Your task to perform on an android device: stop showing notifications on the lock screen Image 0: 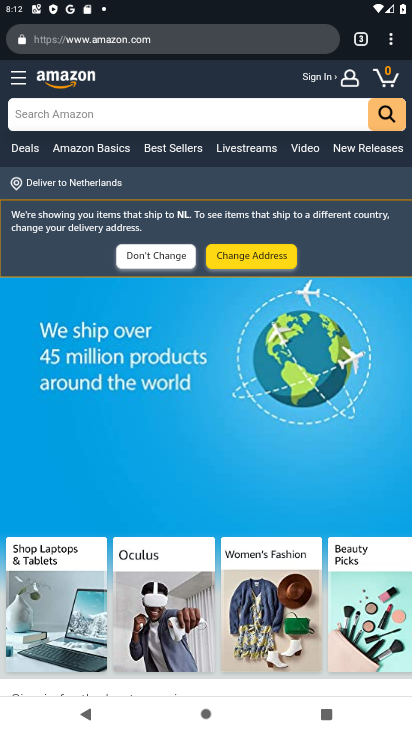
Step 0: press home button
Your task to perform on an android device: stop showing notifications on the lock screen Image 1: 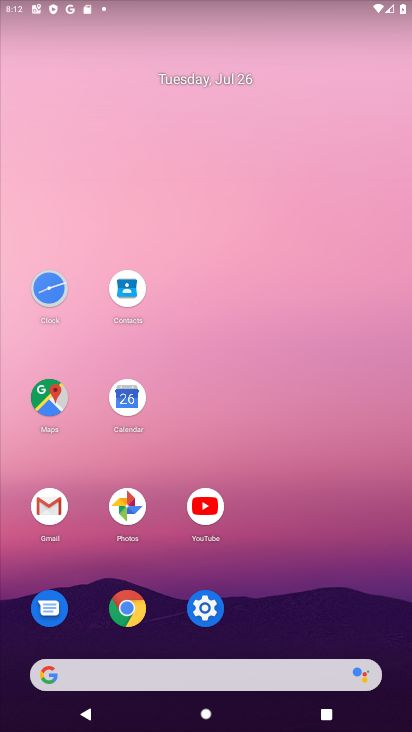
Step 1: click (204, 606)
Your task to perform on an android device: stop showing notifications on the lock screen Image 2: 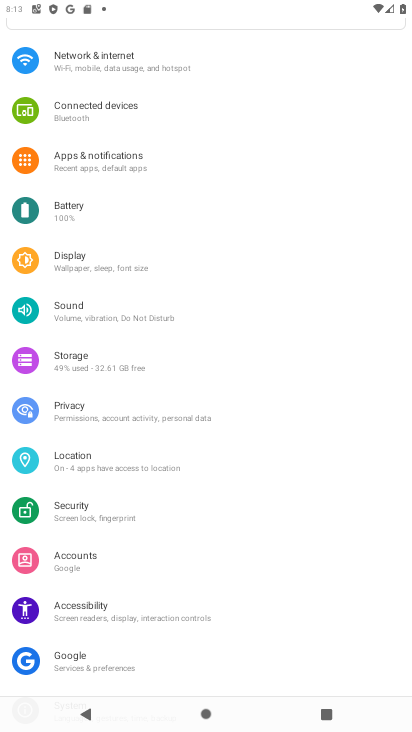
Step 2: click (109, 157)
Your task to perform on an android device: stop showing notifications on the lock screen Image 3: 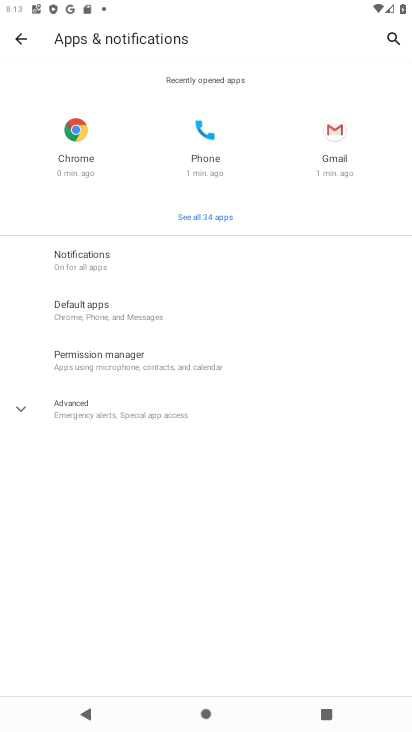
Step 3: click (83, 253)
Your task to perform on an android device: stop showing notifications on the lock screen Image 4: 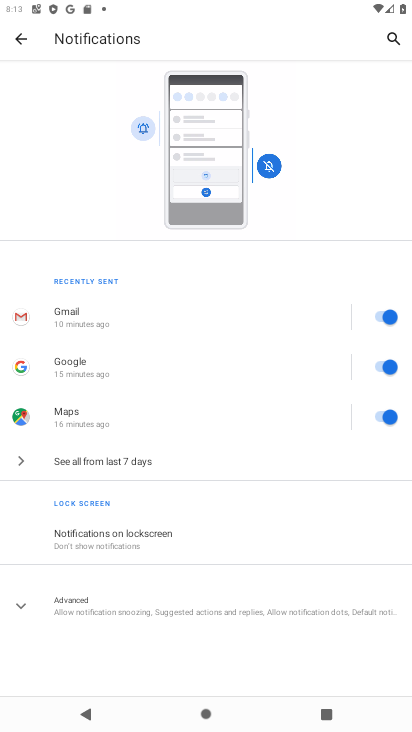
Step 4: click (113, 537)
Your task to perform on an android device: stop showing notifications on the lock screen Image 5: 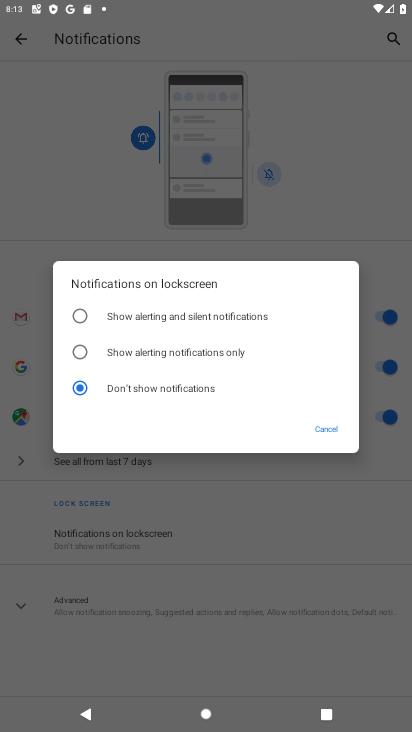
Step 5: task complete